Your task to perform on an android device: refresh tabs in the chrome app Image 0: 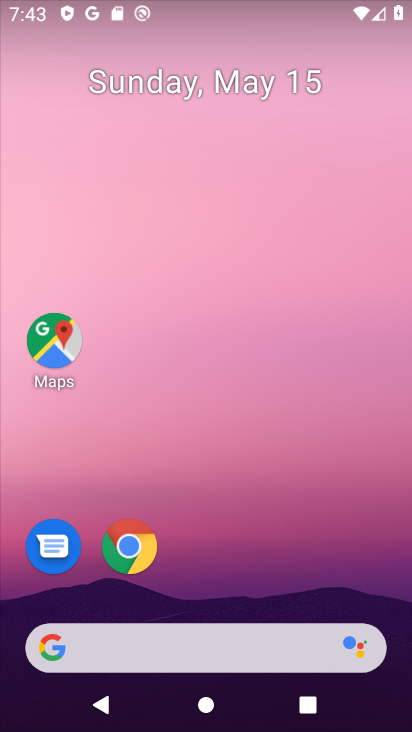
Step 0: click (131, 543)
Your task to perform on an android device: refresh tabs in the chrome app Image 1: 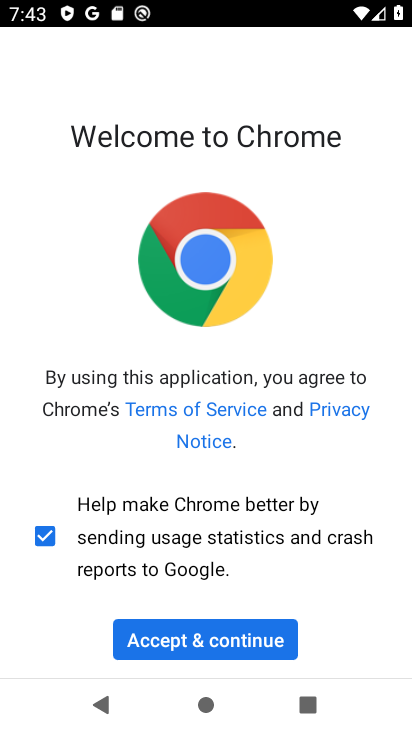
Step 1: click (261, 640)
Your task to perform on an android device: refresh tabs in the chrome app Image 2: 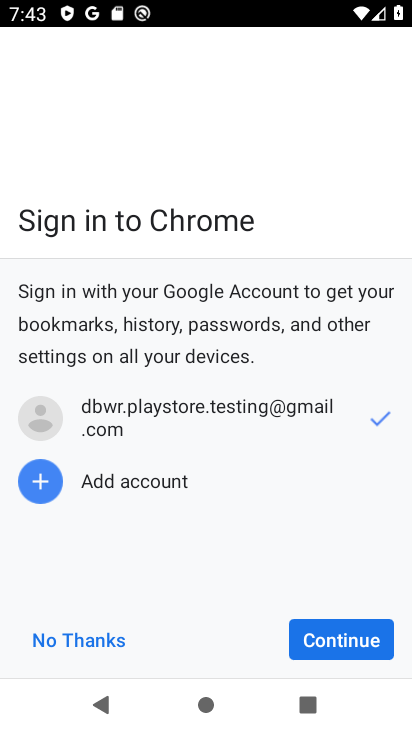
Step 2: click (324, 640)
Your task to perform on an android device: refresh tabs in the chrome app Image 3: 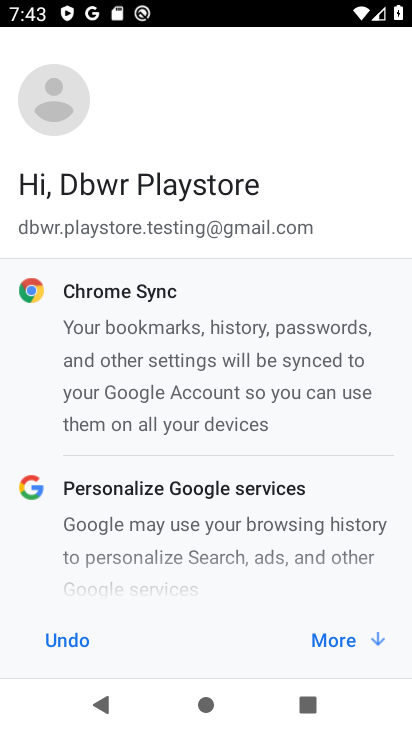
Step 3: click (326, 636)
Your task to perform on an android device: refresh tabs in the chrome app Image 4: 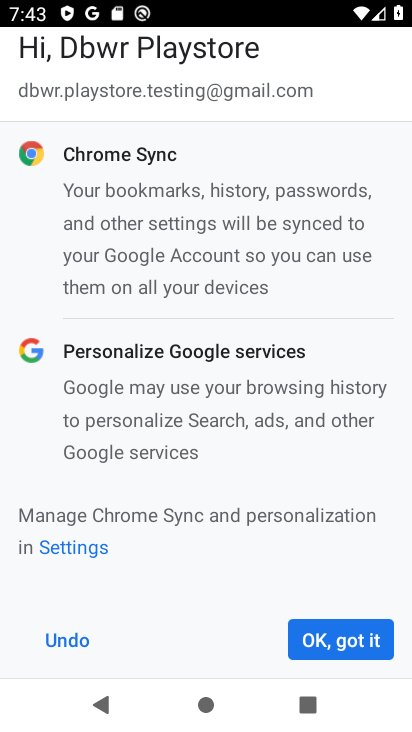
Step 4: click (326, 636)
Your task to perform on an android device: refresh tabs in the chrome app Image 5: 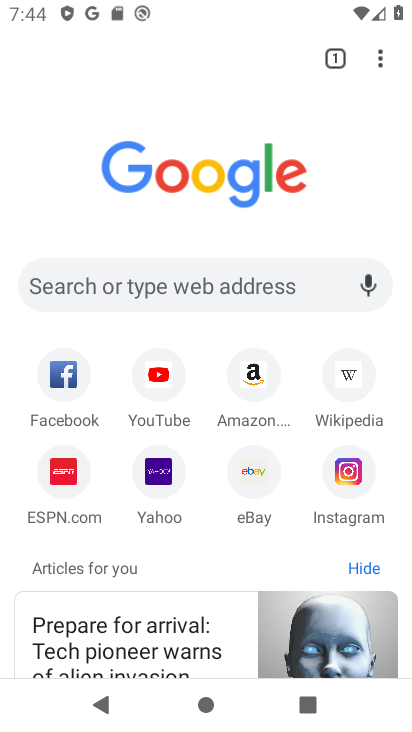
Step 5: click (379, 55)
Your task to perform on an android device: refresh tabs in the chrome app Image 6: 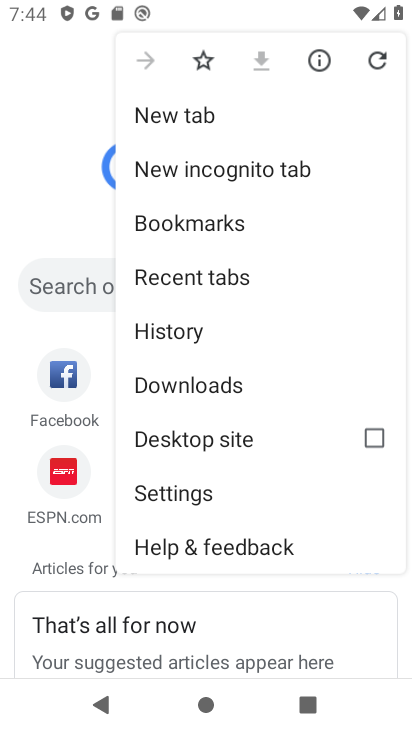
Step 6: click (373, 56)
Your task to perform on an android device: refresh tabs in the chrome app Image 7: 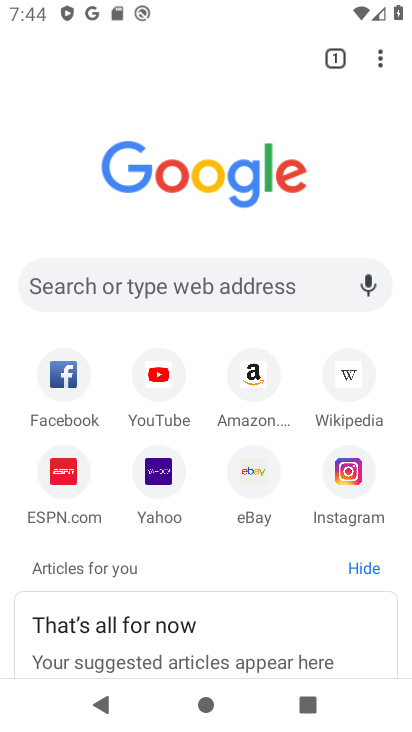
Step 7: task complete